Your task to perform on an android device: toggle priority inbox in the gmail app Image 0: 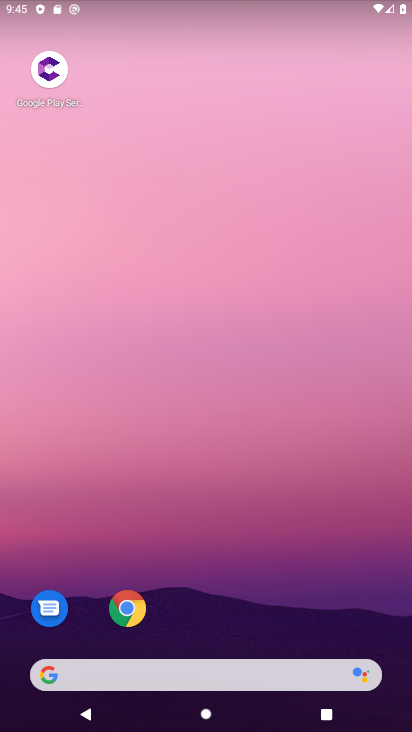
Step 0: drag from (235, 567) to (250, 120)
Your task to perform on an android device: toggle priority inbox in the gmail app Image 1: 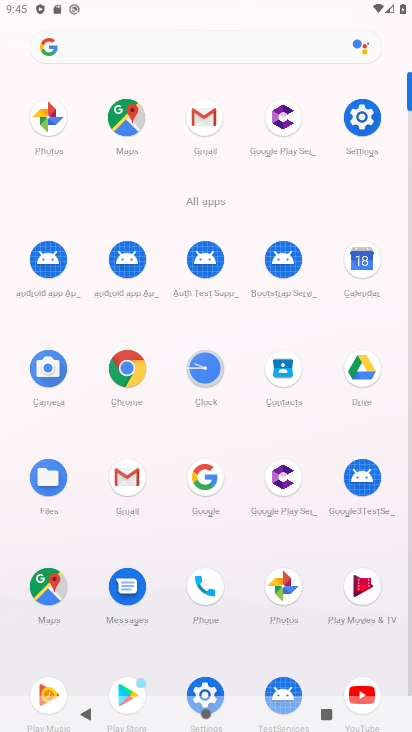
Step 1: click (129, 481)
Your task to perform on an android device: toggle priority inbox in the gmail app Image 2: 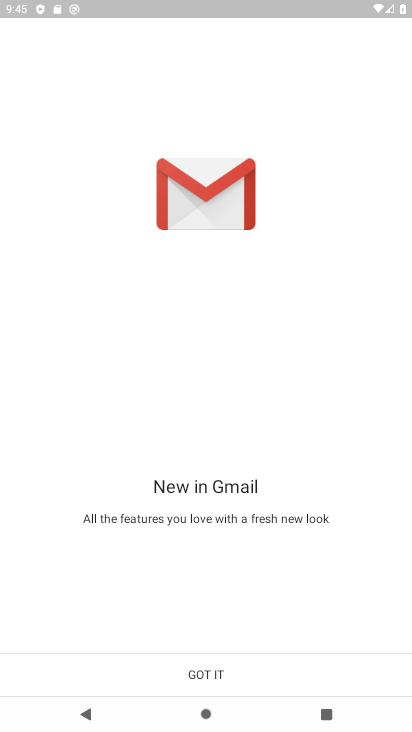
Step 2: click (231, 681)
Your task to perform on an android device: toggle priority inbox in the gmail app Image 3: 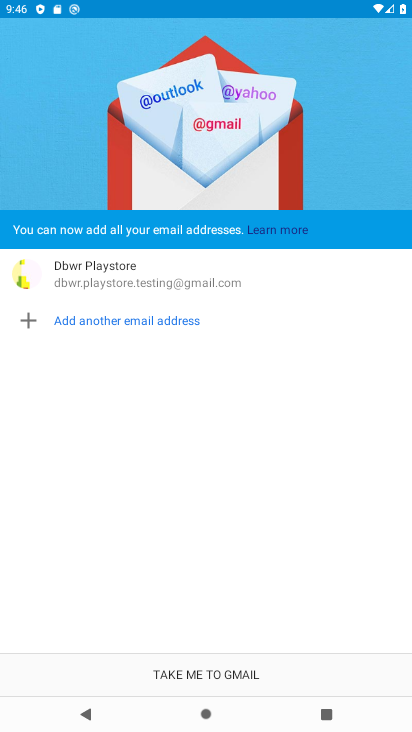
Step 3: click (234, 674)
Your task to perform on an android device: toggle priority inbox in the gmail app Image 4: 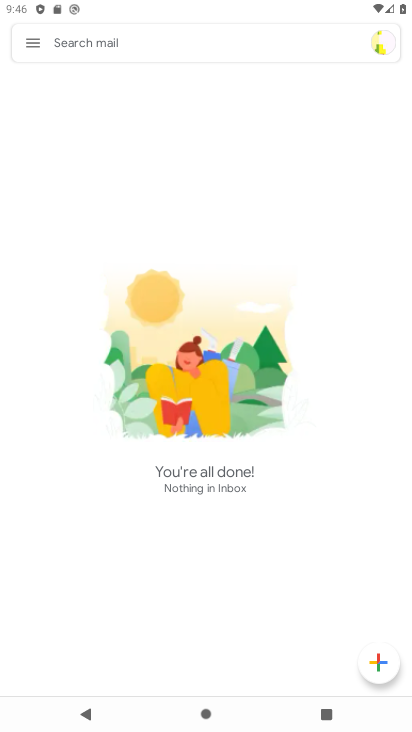
Step 4: click (37, 48)
Your task to perform on an android device: toggle priority inbox in the gmail app Image 5: 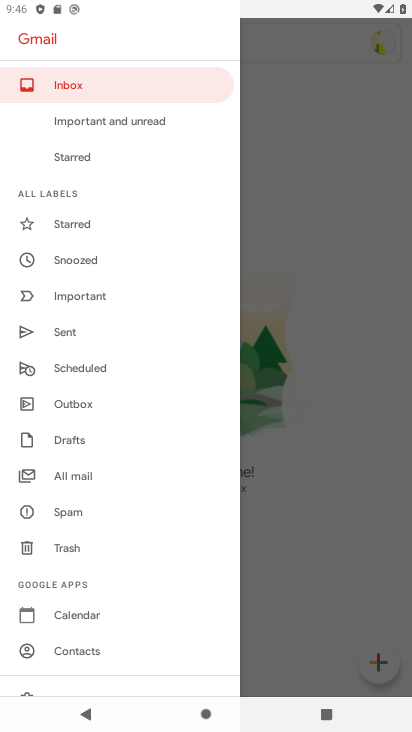
Step 5: drag from (136, 637) to (168, 216)
Your task to perform on an android device: toggle priority inbox in the gmail app Image 6: 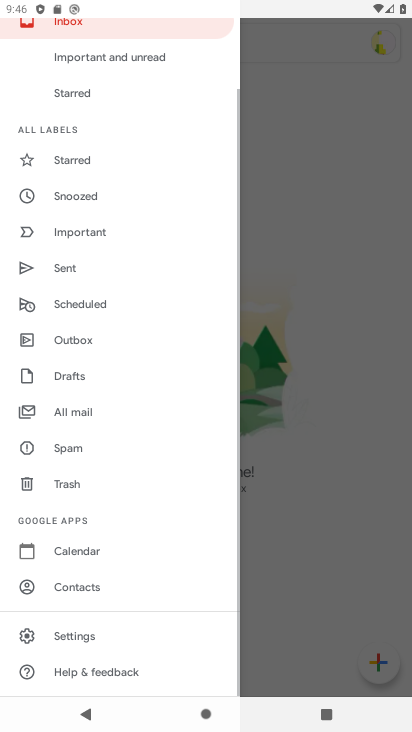
Step 6: click (94, 633)
Your task to perform on an android device: toggle priority inbox in the gmail app Image 7: 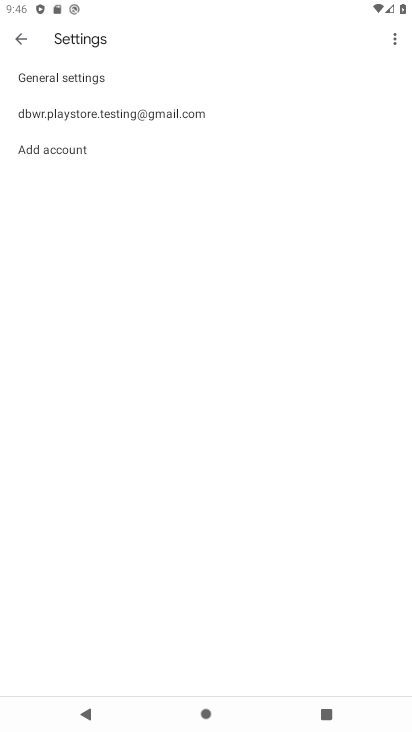
Step 7: click (113, 113)
Your task to perform on an android device: toggle priority inbox in the gmail app Image 8: 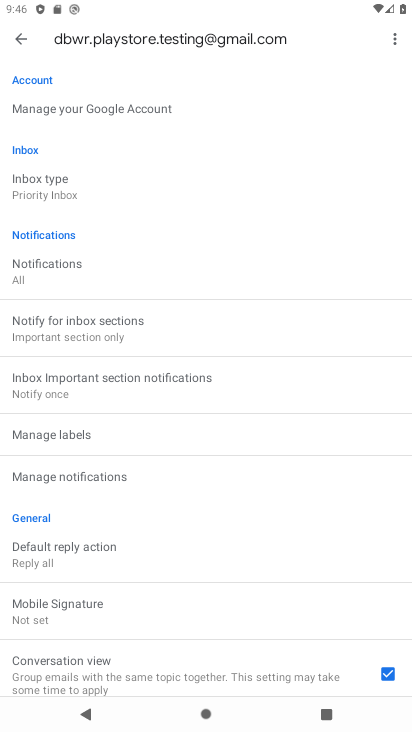
Step 8: click (89, 175)
Your task to perform on an android device: toggle priority inbox in the gmail app Image 9: 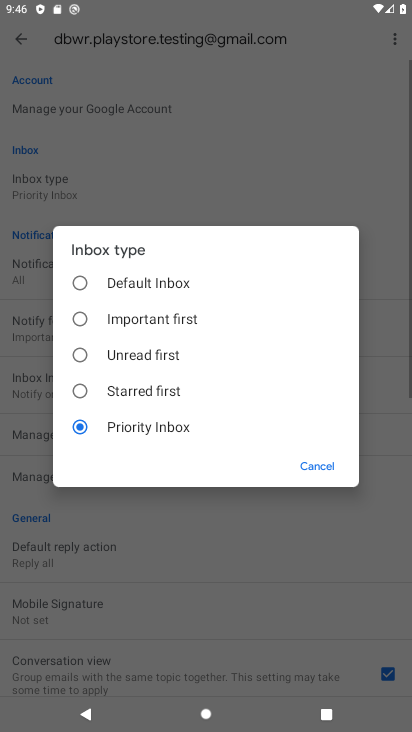
Step 9: click (123, 278)
Your task to perform on an android device: toggle priority inbox in the gmail app Image 10: 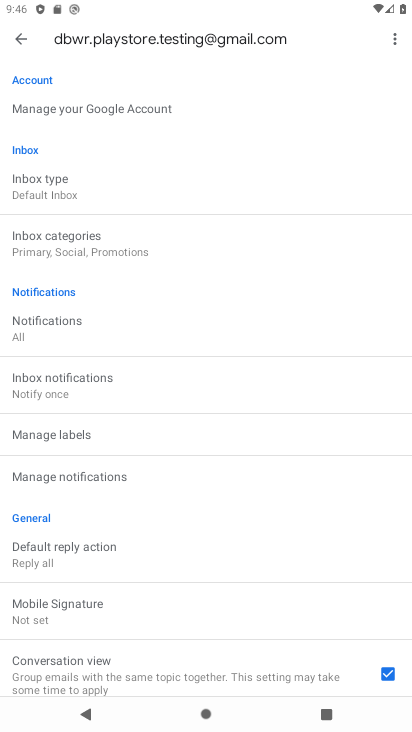
Step 10: task complete